Your task to perform on an android device: turn off picture-in-picture Image 0: 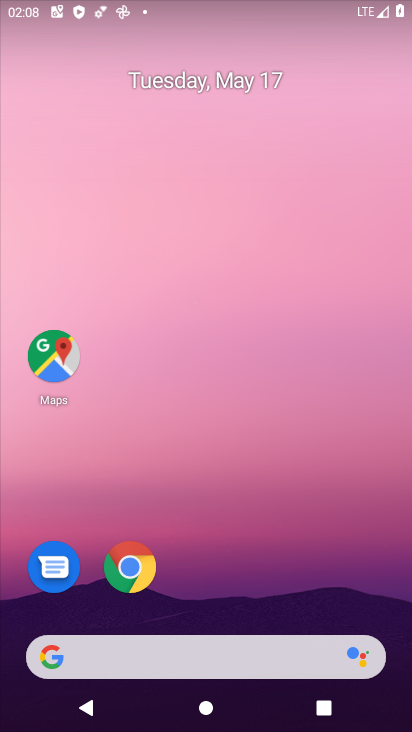
Step 0: drag from (386, 622) to (292, 74)
Your task to perform on an android device: turn off picture-in-picture Image 1: 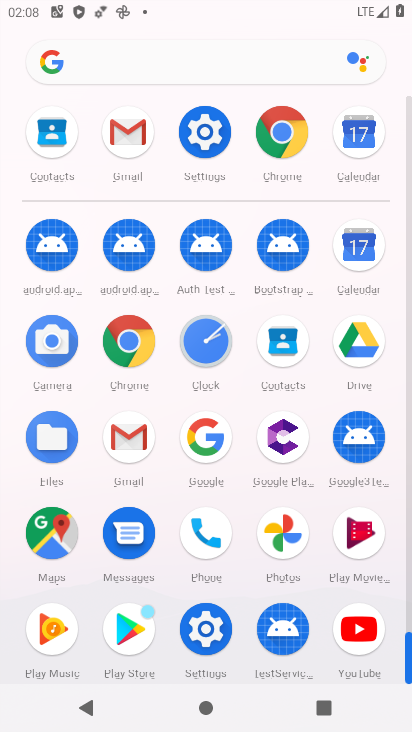
Step 1: click (205, 627)
Your task to perform on an android device: turn off picture-in-picture Image 2: 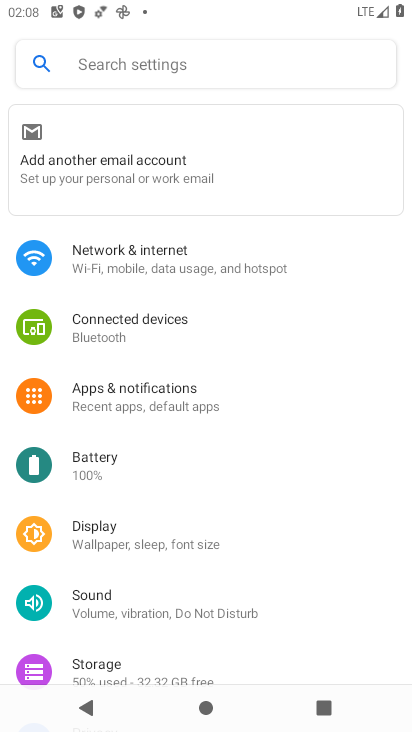
Step 2: click (134, 395)
Your task to perform on an android device: turn off picture-in-picture Image 3: 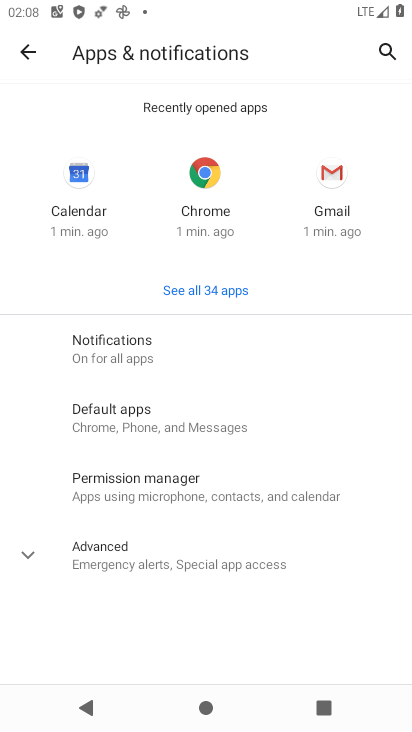
Step 3: click (99, 335)
Your task to perform on an android device: turn off picture-in-picture Image 4: 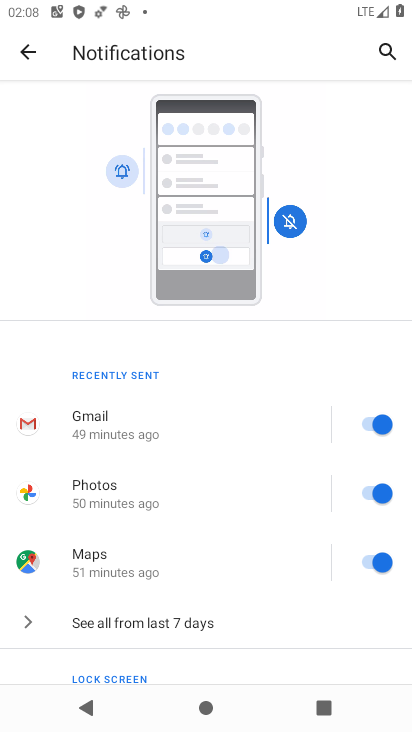
Step 4: press back button
Your task to perform on an android device: turn off picture-in-picture Image 5: 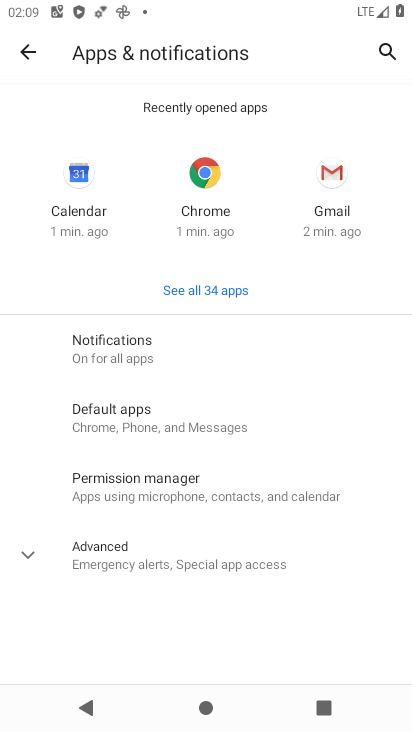
Step 5: click (87, 563)
Your task to perform on an android device: turn off picture-in-picture Image 6: 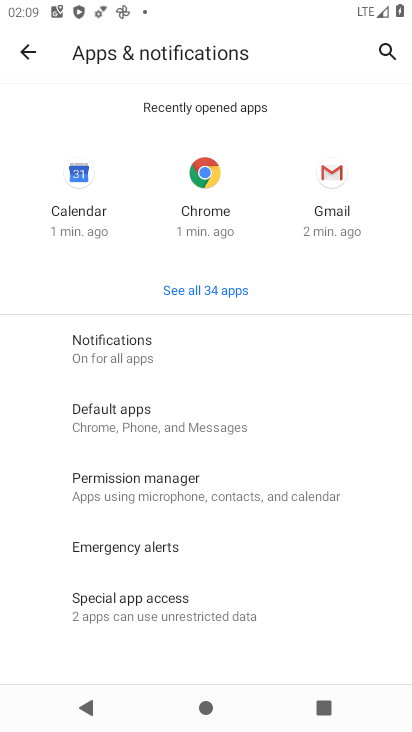
Step 6: click (164, 612)
Your task to perform on an android device: turn off picture-in-picture Image 7: 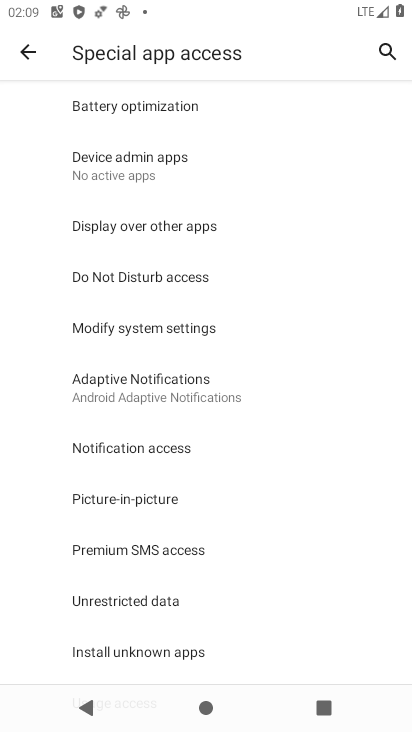
Step 7: drag from (164, 612) to (176, 491)
Your task to perform on an android device: turn off picture-in-picture Image 8: 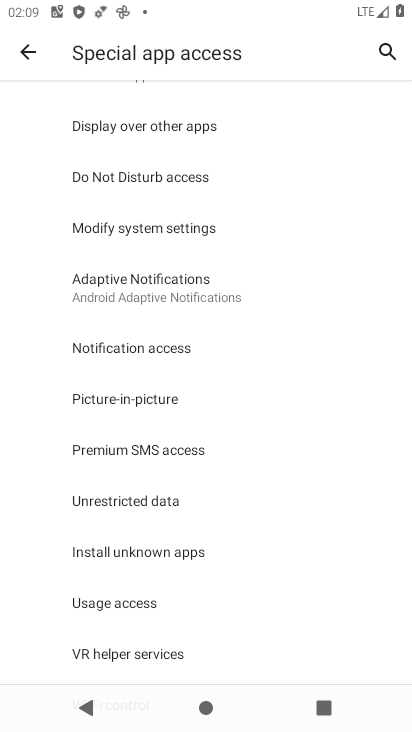
Step 8: click (117, 402)
Your task to perform on an android device: turn off picture-in-picture Image 9: 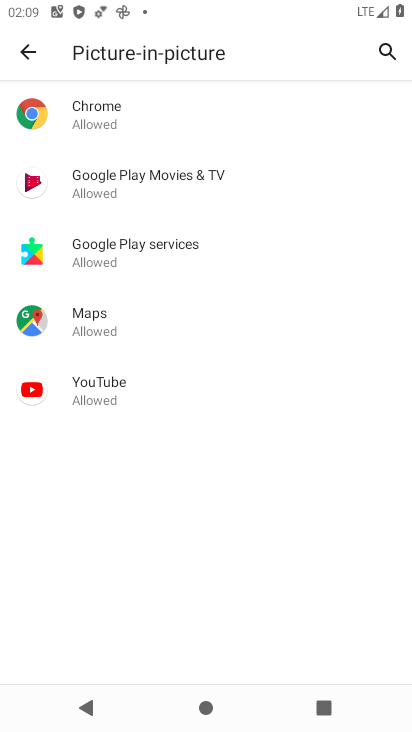
Step 9: click (89, 387)
Your task to perform on an android device: turn off picture-in-picture Image 10: 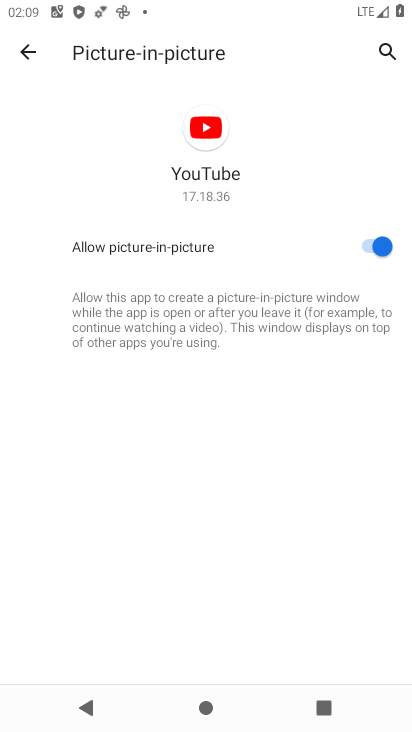
Step 10: click (362, 243)
Your task to perform on an android device: turn off picture-in-picture Image 11: 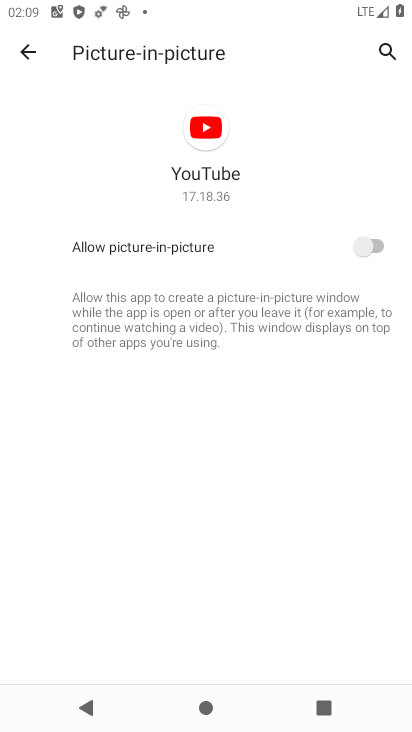
Step 11: task complete